Your task to perform on an android device: search for starred emails in the gmail app Image 0: 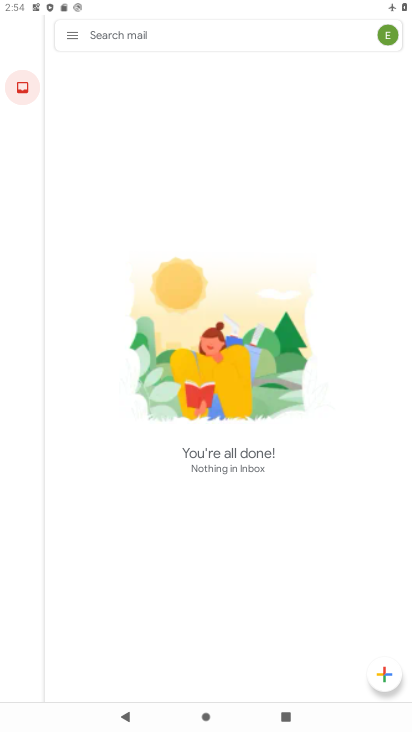
Step 0: press home button
Your task to perform on an android device: search for starred emails in the gmail app Image 1: 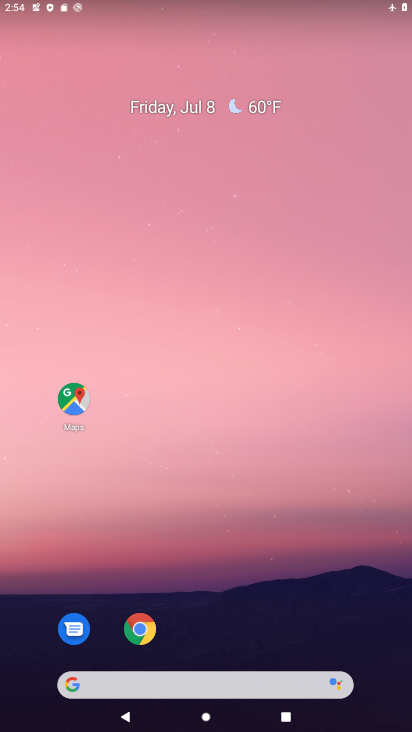
Step 1: drag from (221, 622) to (221, 142)
Your task to perform on an android device: search for starred emails in the gmail app Image 2: 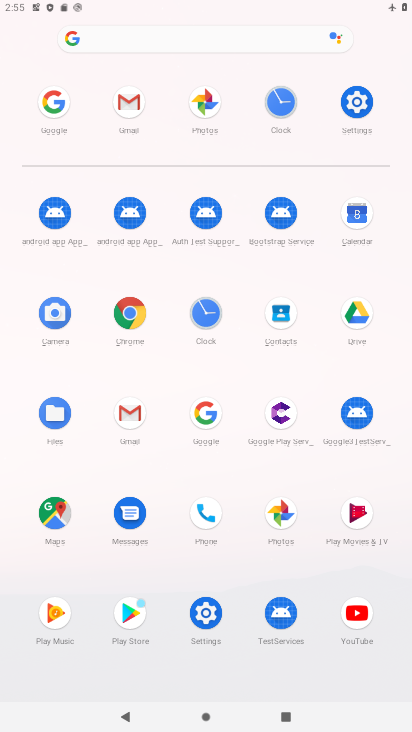
Step 2: click (116, 99)
Your task to perform on an android device: search for starred emails in the gmail app Image 3: 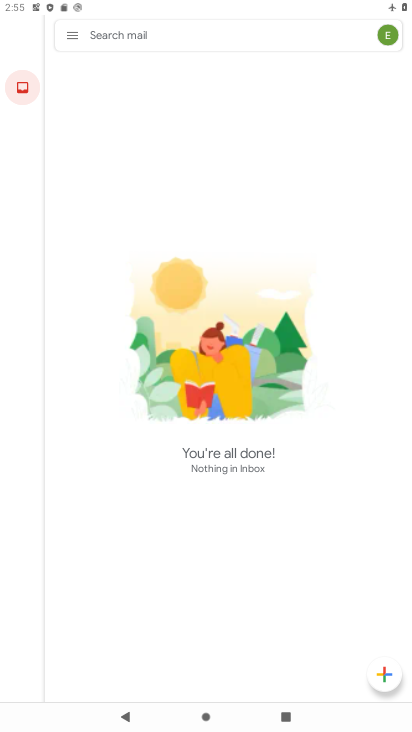
Step 3: click (72, 39)
Your task to perform on an android device: search for starred emails in the gmail app Image 4: 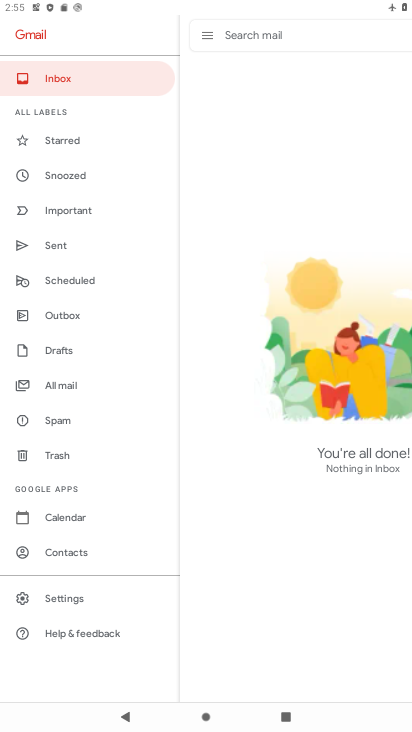
Step 4: click (73, 146)
Your task to perform on an android device: search for starred emails in the gmail app Image 5: 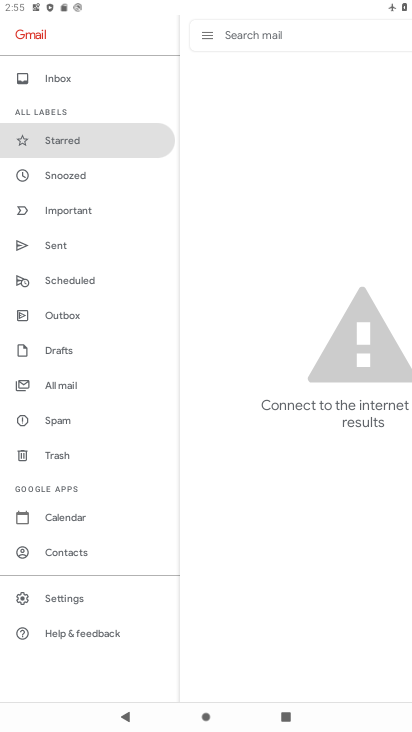
Step 5: task complete